Your task to perform on an android device: Open Reddit.com Image 0: 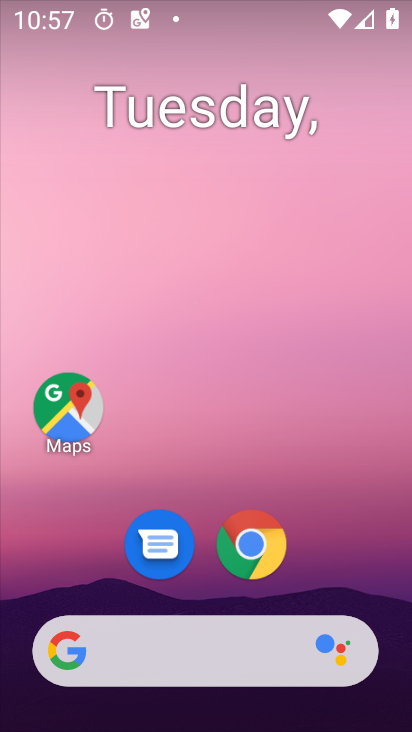
Step 0: click (236, 541)
Your task to perform on an android device: Open Reddit.com Image 1: 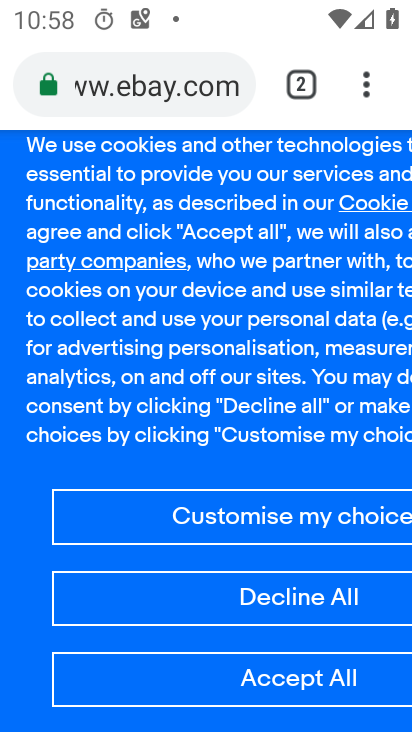
Step 1: click (213, 95)
Your task to perform on an android device: Open Reddit.com Image 2: 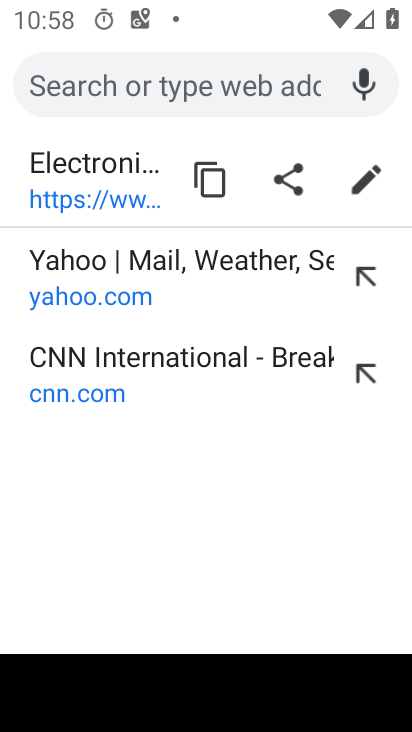
Step 2: type "reddit.com"
Your task to perform on an android device: Open Reddit.com Image 3: 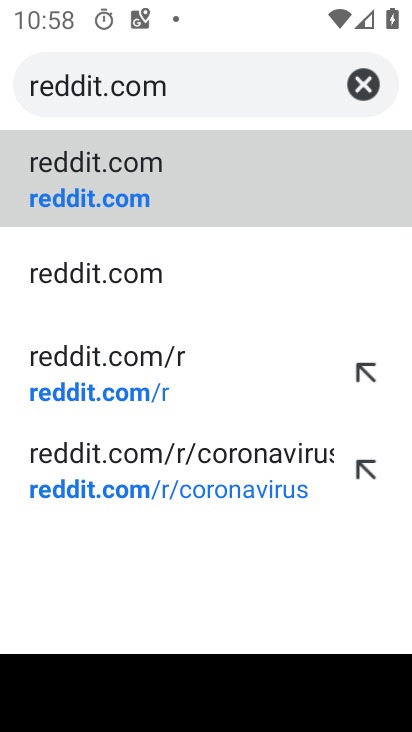
Step 3: click (125, 186)
Your task to perform on an android device: Open Reddit.com Image 4: 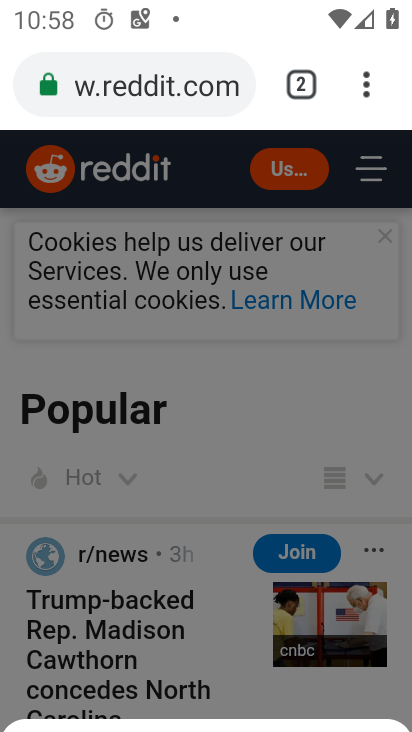
Step 4: task complete